Your task to perform on an android device: turn smart compose on in the gmail app Image 0: 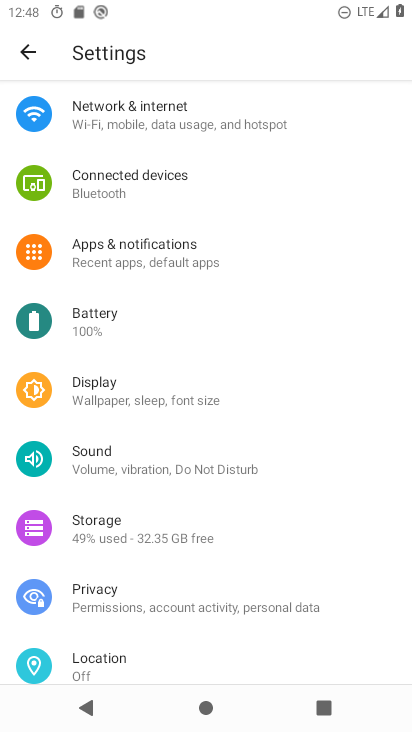
Step 0: press home button
Your task to perform on an android device: turn smart compose on in the gmail app Image 1: 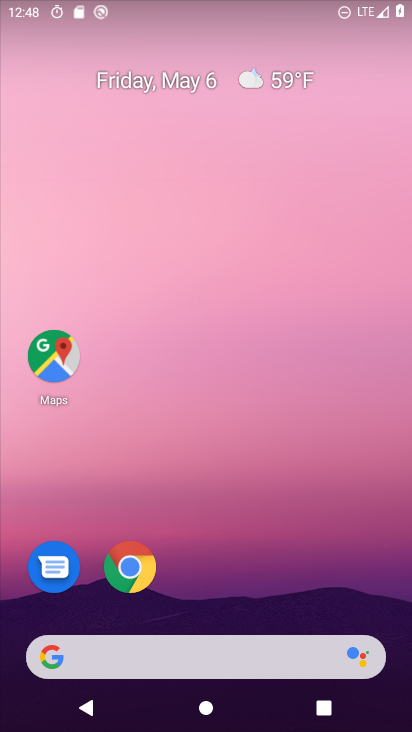
Step 1: drag from (275, 582) to (270, 69)
Your task to perform on an android device: turn smart compose on in the gmail app Image 2: 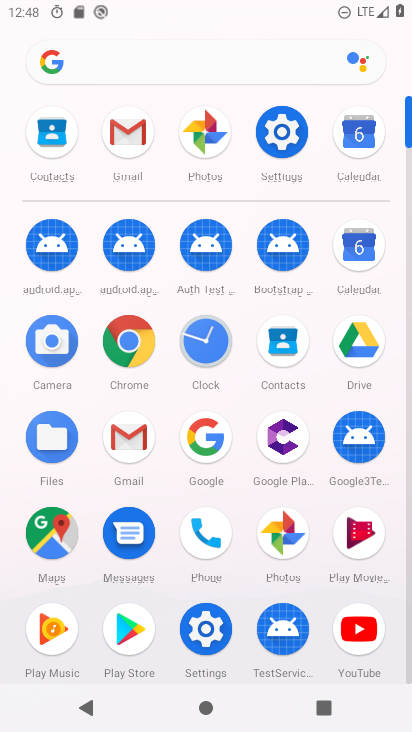
Step 2: click (125, 140)
Your task to perform on an android device: turn smart compose on in the gmail app Image 3: 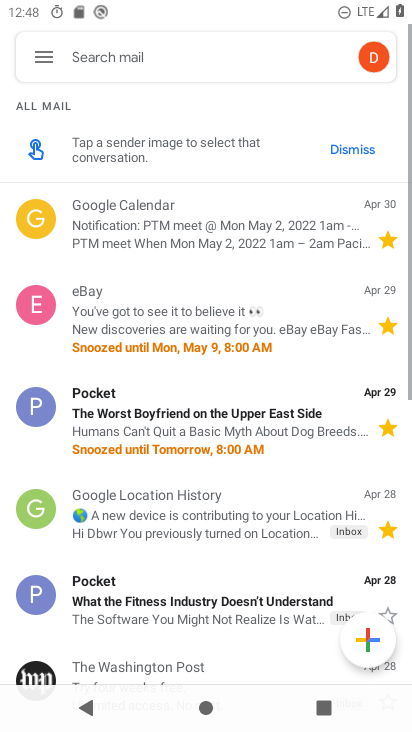
Step 3: click (44, 68)
Your task to perform on an android device: turn smart compose on in the gmail app Image 4: 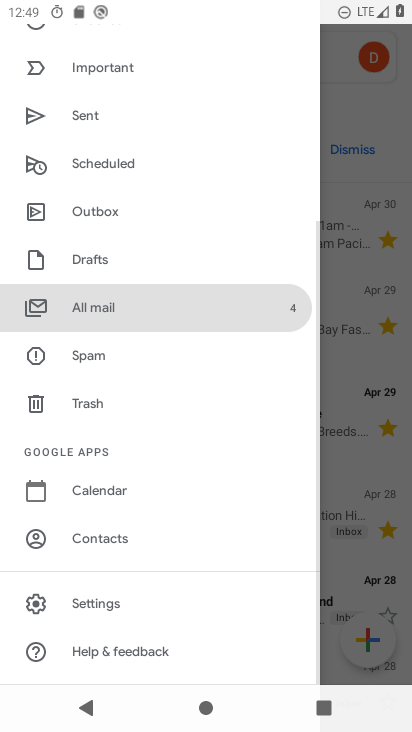
Step 4: click (100, 600)
Your task to perform on an android device: turn smart compose on in the gmail app Image 5: 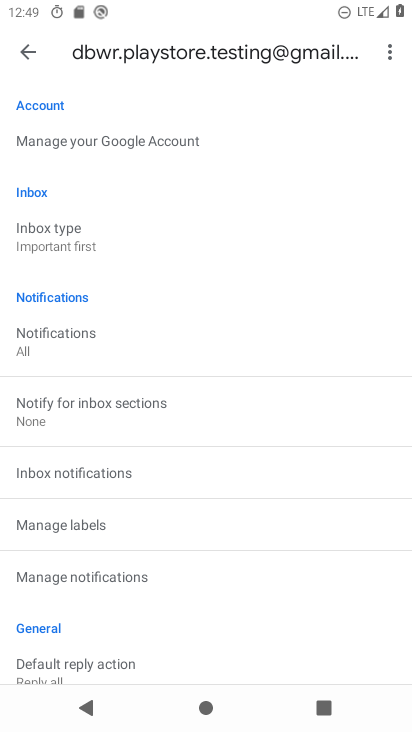
Step 5: task complete